Your task to perform on an android device: See recent photos Image 0: 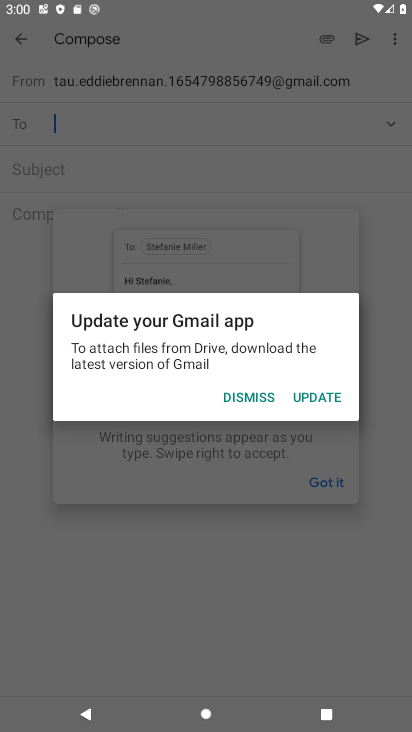
Step 0: press back button
Your task to perform on an android device: See recent photos Image 1: 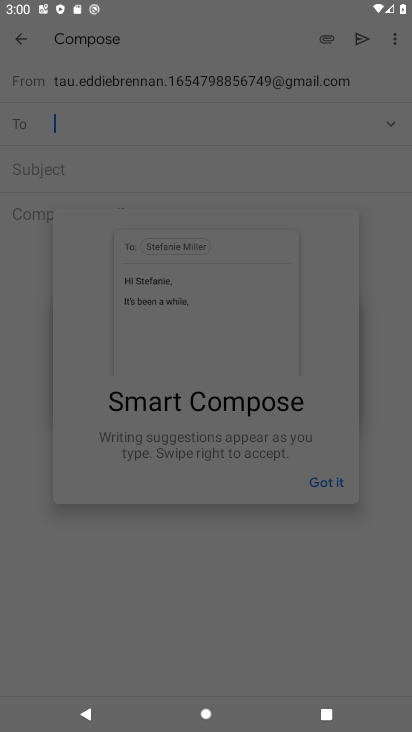
Step 1: press home button
Your task to perform on an android device: See recent photos Image 2: 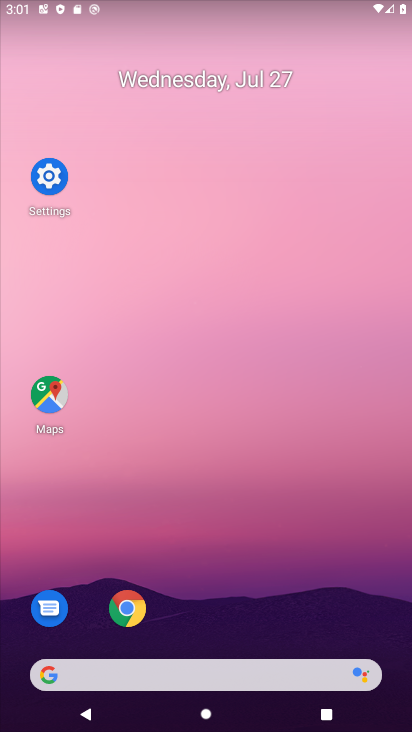
Step 2: drag from (306, 586) to (336, 1)
Your task to perform on an android device: See recent photos Image 3: 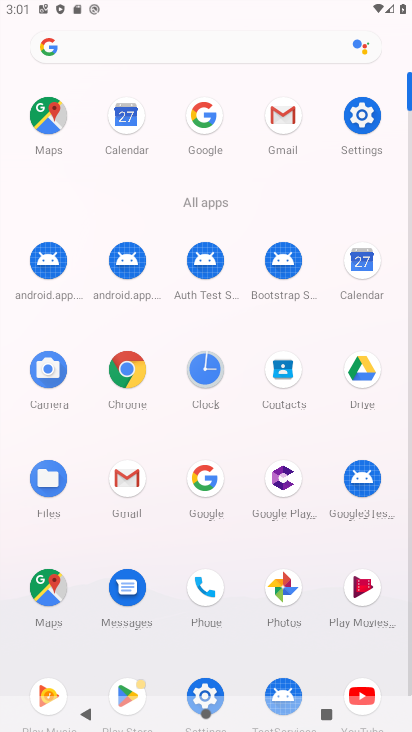
Step 3: drag from (285, 591) to (139, 173)
Your task to perform on an android device: See recent photos Image 4: 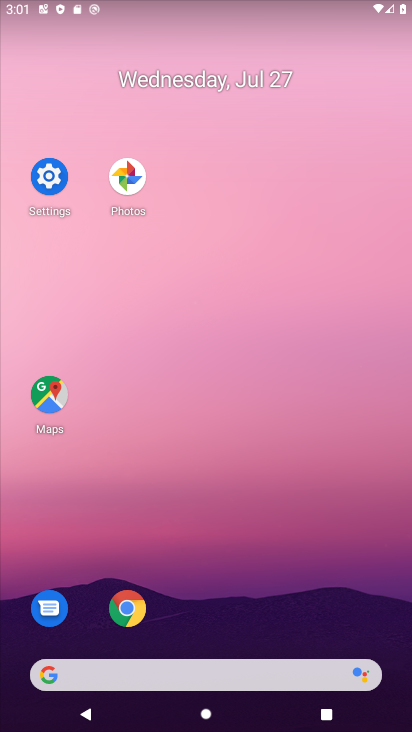
Step 4: click (118, 177)
Your task to perform on an android device: See recent photos Image 5: 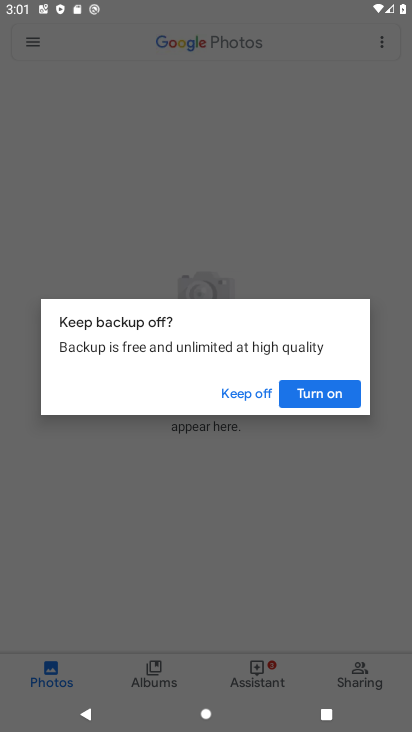
Step 5: click (352, 395)
Your task to perform on an android device: See recent photos Image 6: 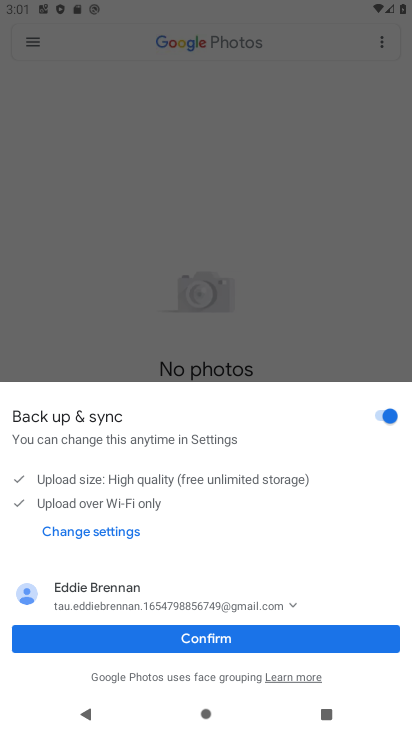
Step 6: click (252, 637)
Your task to perform on an android device: See recent photos Image 7: 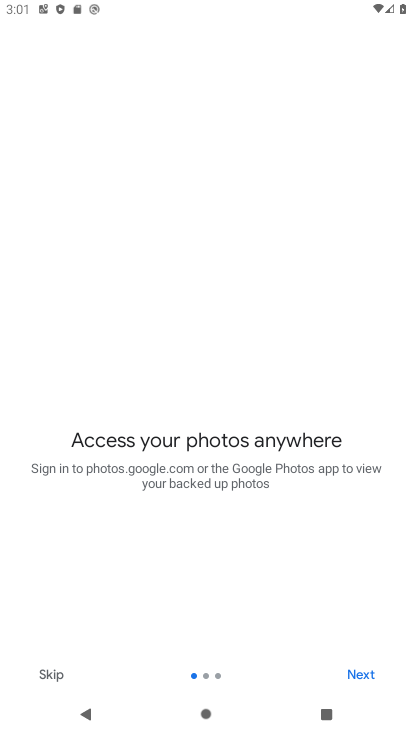
Step 7: task complete